Your task to perform on an android device: Clear all items from cart on amazon.com. Search for logitech g pro on amazon.com, select the first entry, and add it to the cart. Image 0: 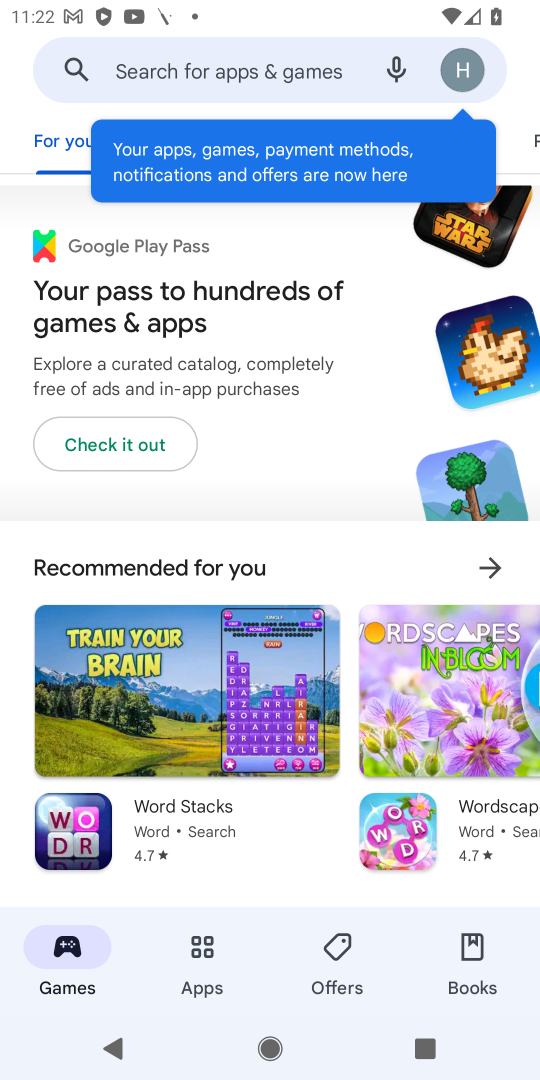
Step 0: press home button
Your task to perform on an android device: Clear all items from cart on amazon.com. Search for logitech g pro on amazon.com, select the first entry, and add it to the cart. Image 1: 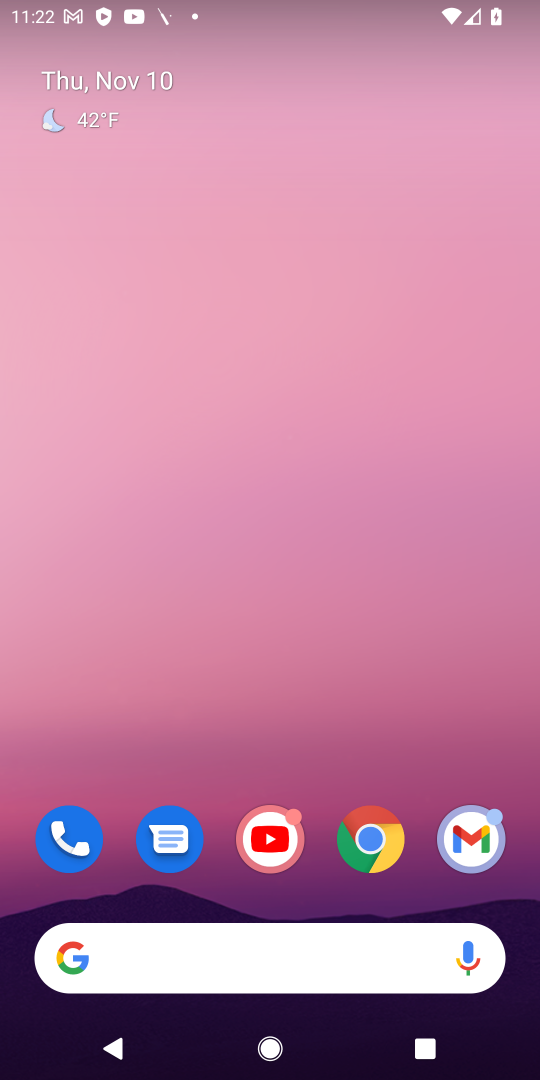
Step 1: click (375, 830)
Your task to perform on an android device: Clear all items from cart on amazon.com. Search for logitech g pro on amazon.com, select the first entry, and add it to the cart. Image 2: 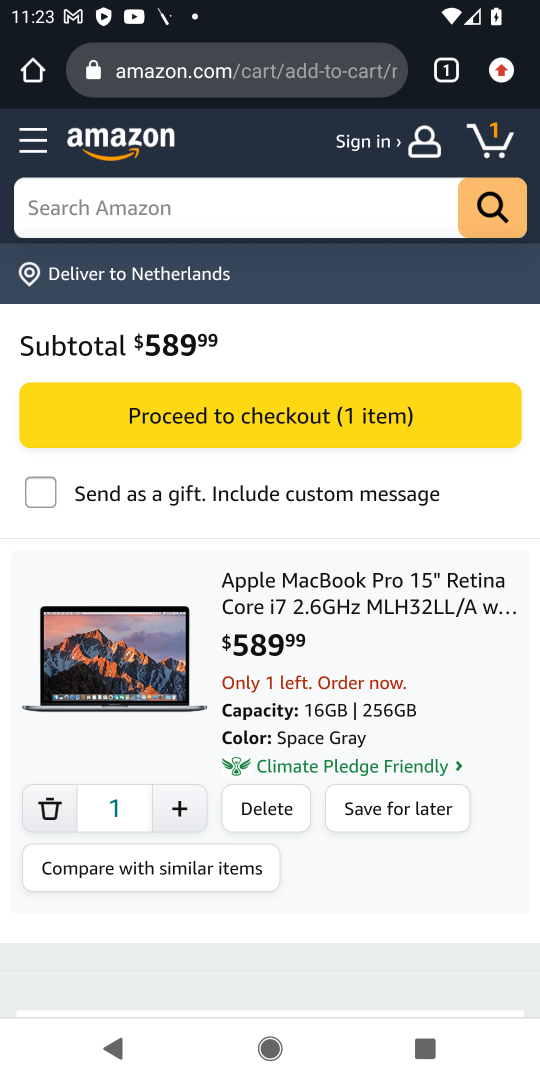
Step 2: click (495, 141)
Your task to perform on an android device: Clear all items from cart on amazon.com. Search for logitech g pro on amazon.com, select the first entry, and add it to the cart. Image 3: 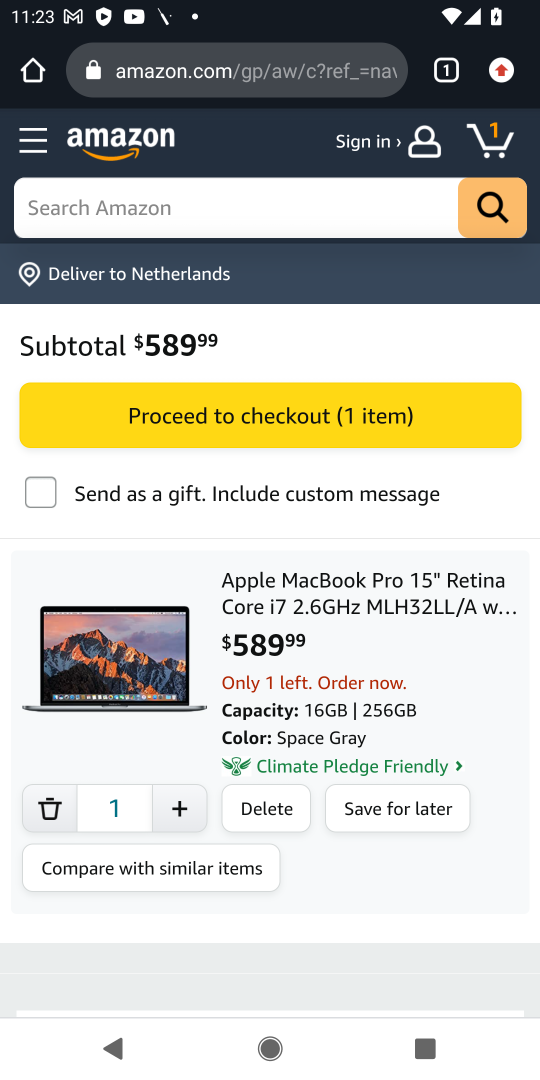
Step 3: click (495, 129)
Your task to perform on an android device: Clear all items from cart on amazon.com. Search for logitech g pro on amazon.com, select the first entry, and add it to the cart. Image 4: 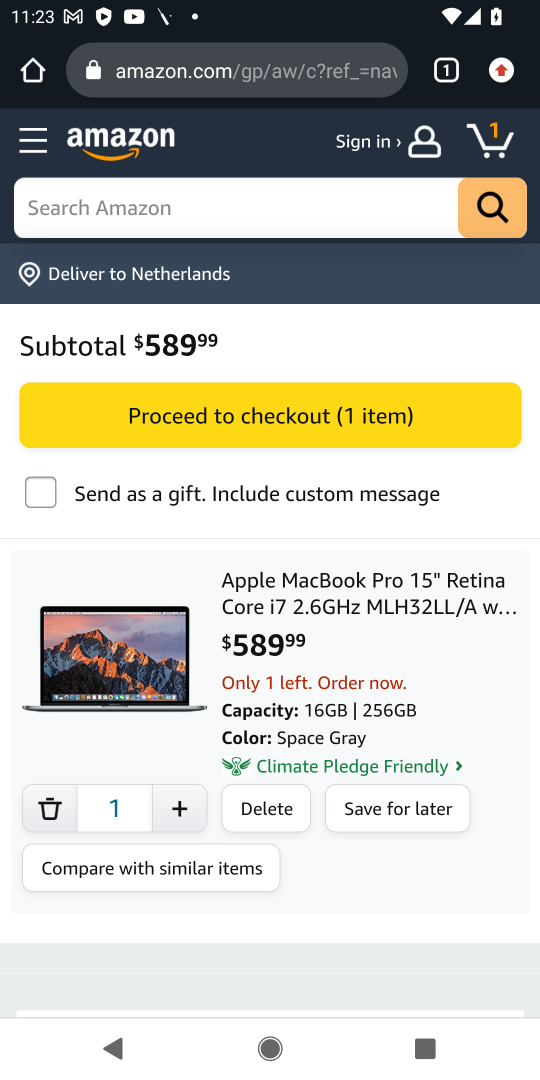
Step 4: click (254, 817)
Your task to perform on an android device: Clear all items from cart on amazon.com. Search for logitech g pro on amazon.com, select the first entry, and add it to the cart. Image 5: 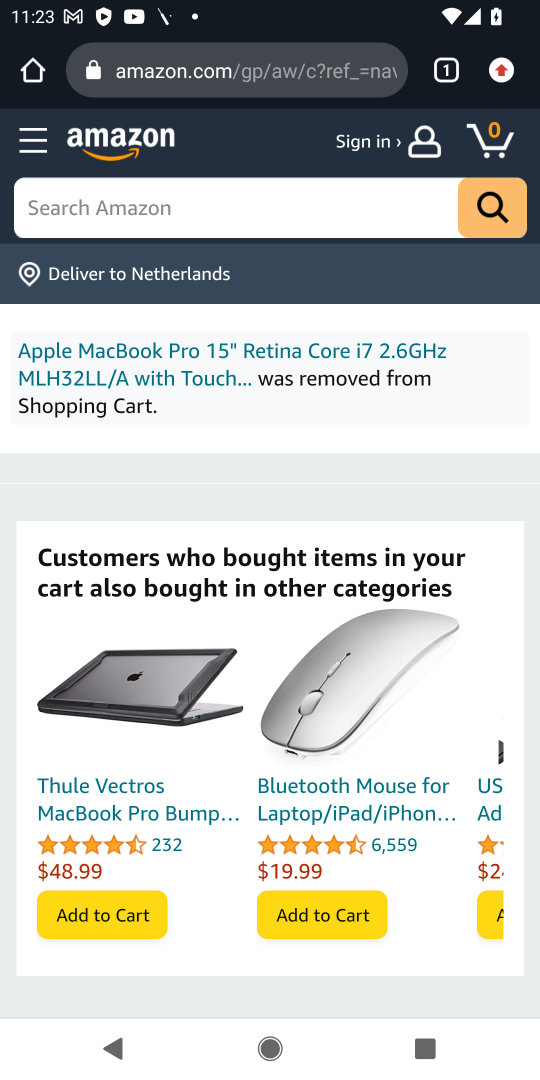
Step 5: click (245, 213)
Your task to perform on an android device: Clear all items from cart on amazon.com. Search for logitech g pro on amazon.com, select the first entry, and add it to the cart. Image 6: 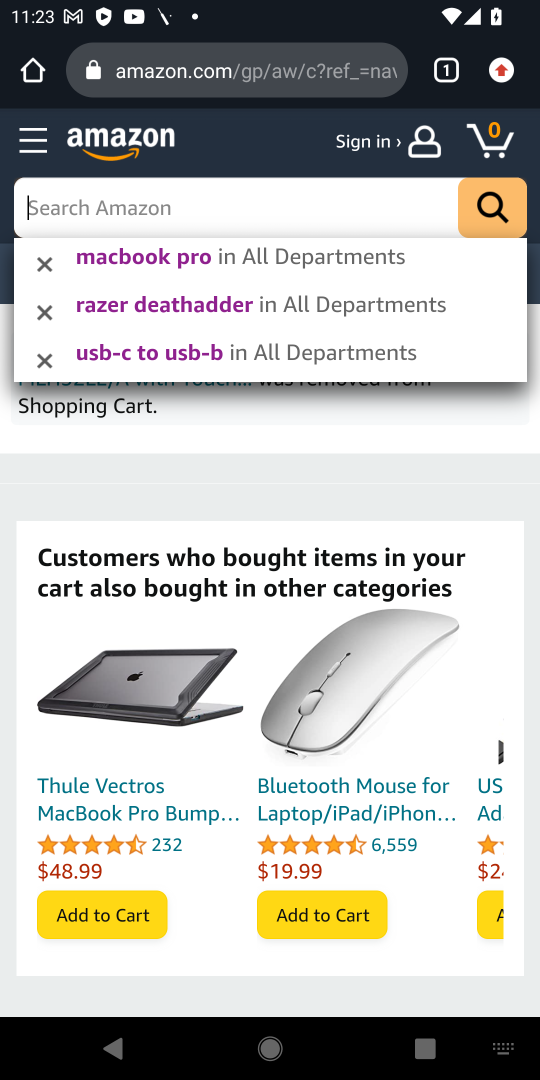
Step 6: type "logitech g pro"
Your task to perform on an android device: Clear all items from cart on amazon.com. Search for logitech g pro on amazon.com, select the first entry, and add it to the cart. Image 7: 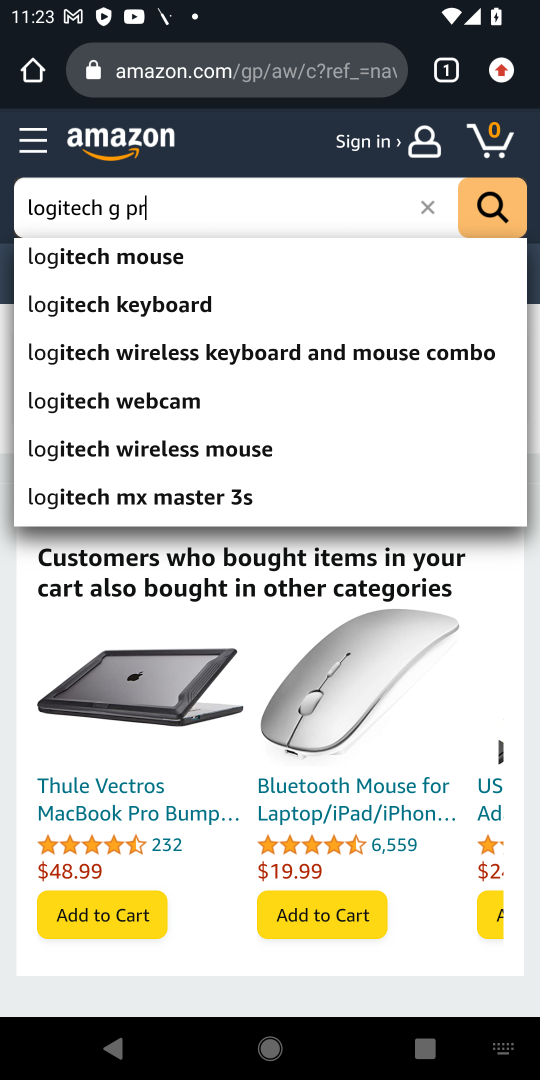
Step 7: press enter
Your task to perform on an android device: Clear all items from cart on amazon.com. Search for logitech g pro on amazon.com, select the first entry, and add it to the cart. Image 8: 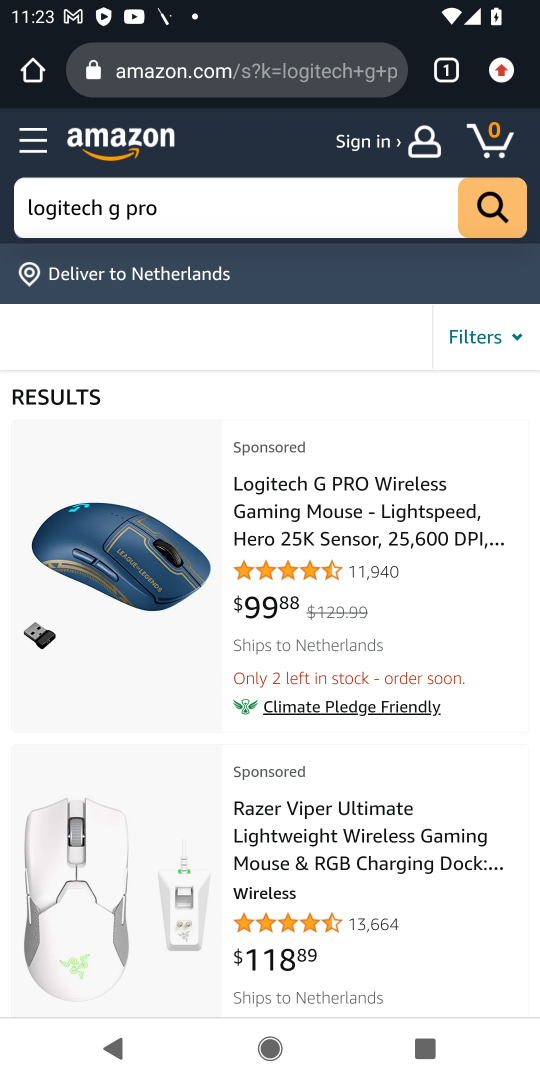
Step 8: click (146, 548)
Your task to perform on an android device: Clear all items from cart on amazon.com. Search for logitech g pro on amazon.com, select the first entry, and add it to the cart. Image 9: 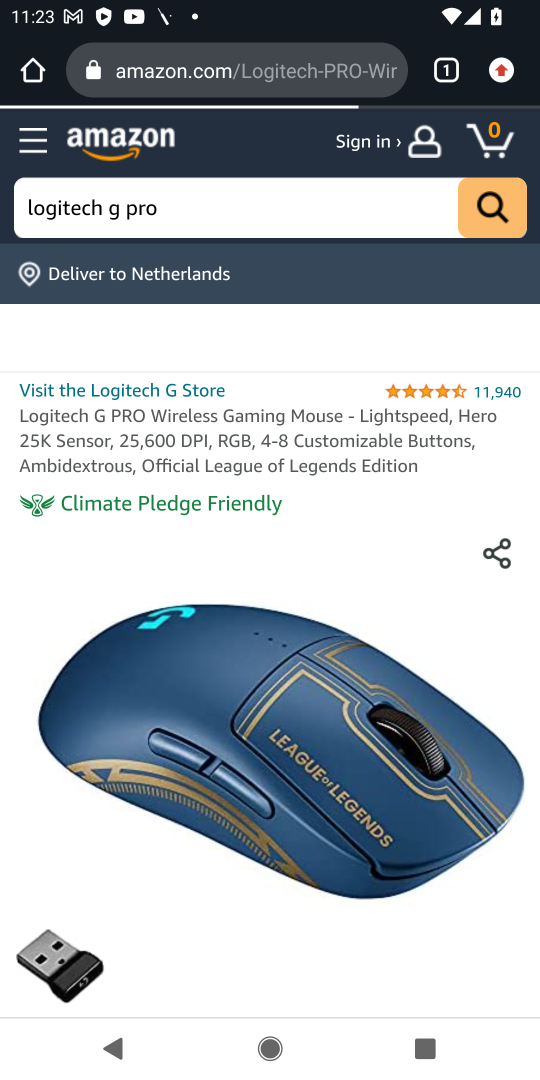
Step 9: drag from (403, 866) to (359, 436)
Your task to perform on an android device: Clear all items from cart on amazon.com. Search for logitech g pro on amazon.com, select the first entry, and add it to the cart. Image 10: 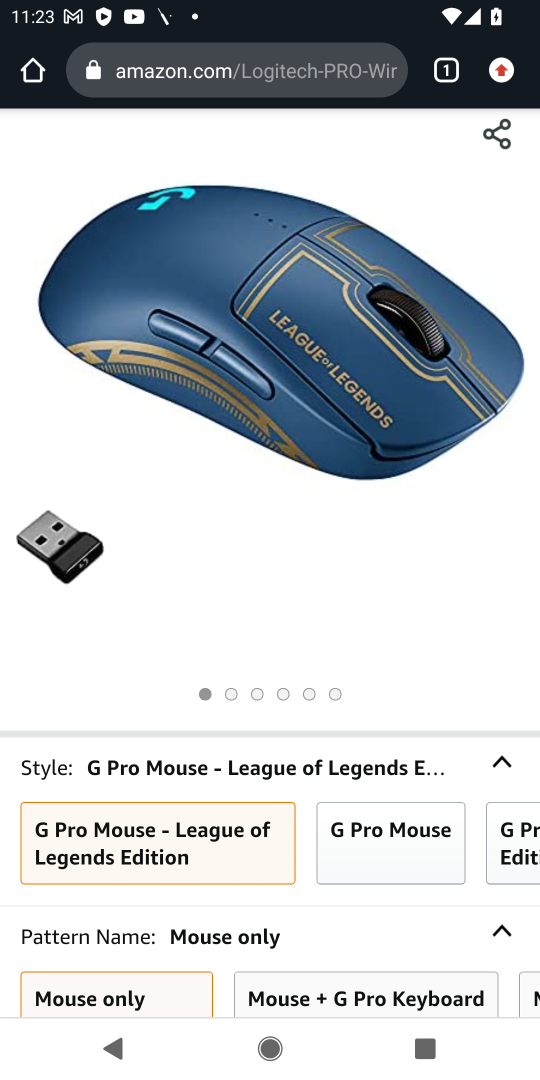
Step 10: drag from (439, 854) to (412, 236)
Your task to perform on an android device: Clear all items from cart on amazon.com. Search for logitech g pro on amazon.com, select the first entry, and add it to the cart. Image 11: 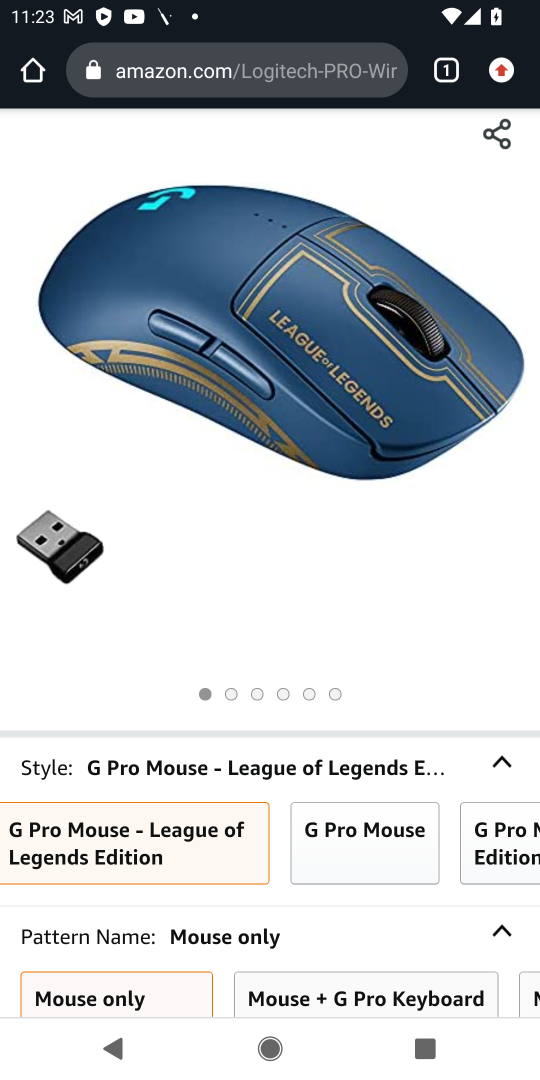
Step 11: drag from (275, 624) to (380, 263)
Your task to perform on an android device: Clear all items from cart on amazon.com. Search for logitech g pro on amazon.com, select the first entry, and add it to the cart. Image 12: 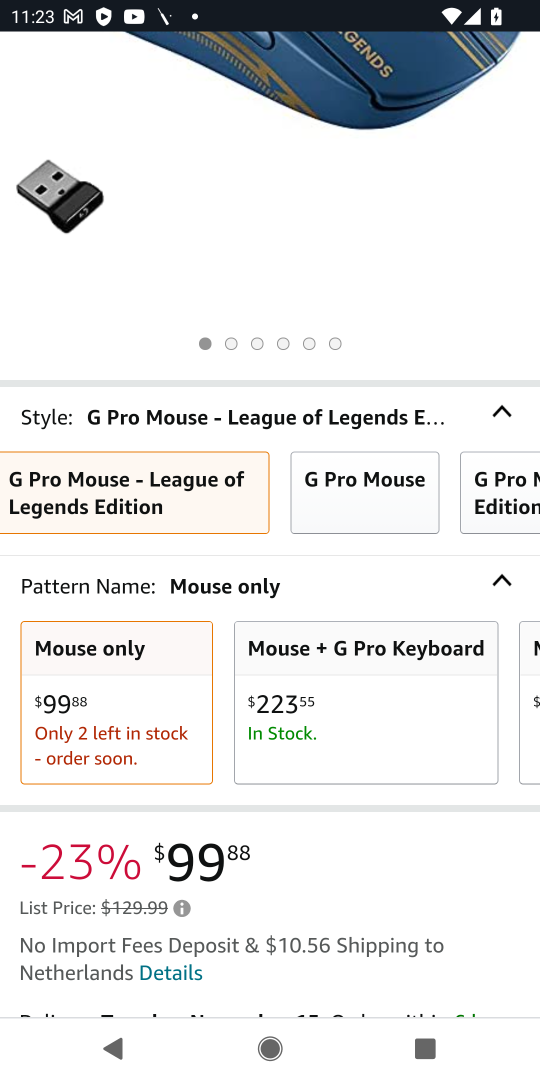
Step 12: drag from (403, 770) to (446, 348)
Your task to perform on an android device: Clear all items from cart on amazon.com. Search for logitech g pro on amazon.com, select the first entry, and add it to the cart. Image 13: 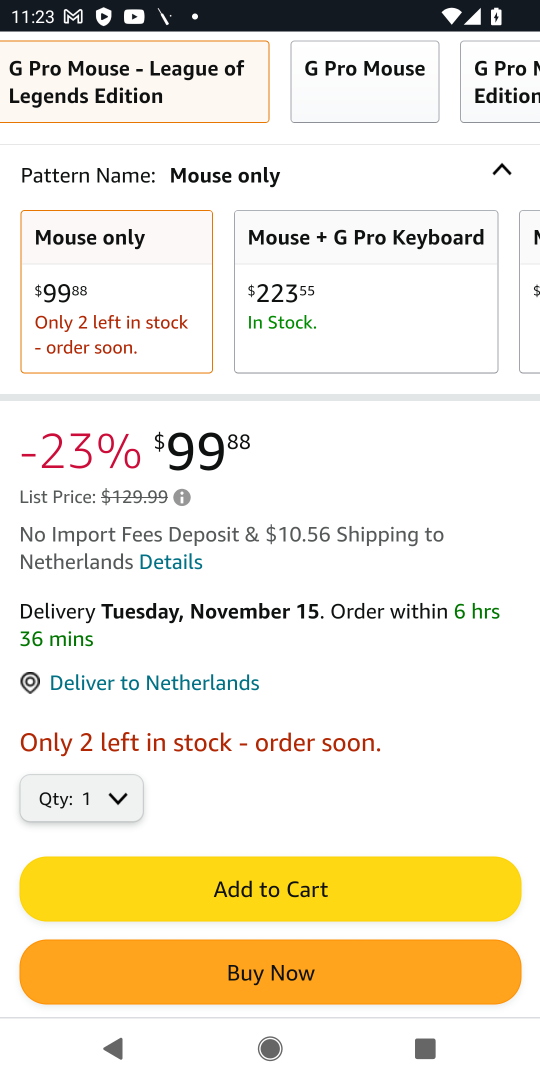
Step 13: click (325, 885)
Your task to perform on an android device: Clear all items from cart on amazon.com. Search for logitech g pro on amazon.com, select the first entry, and add it to the cart. Image 14: 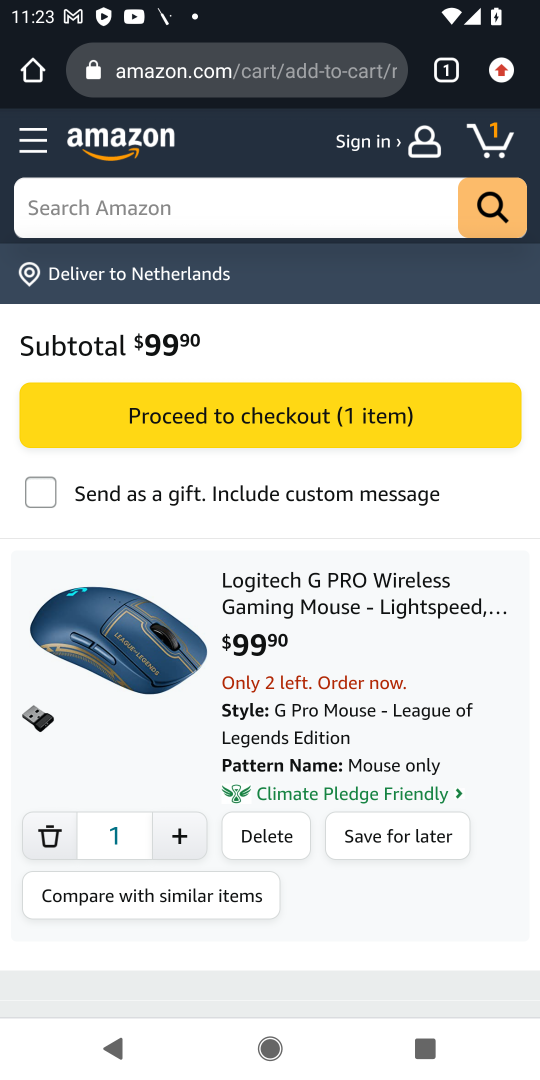
Step 14: task complete